Your task to perform on an android device: See recent photos Image 0: 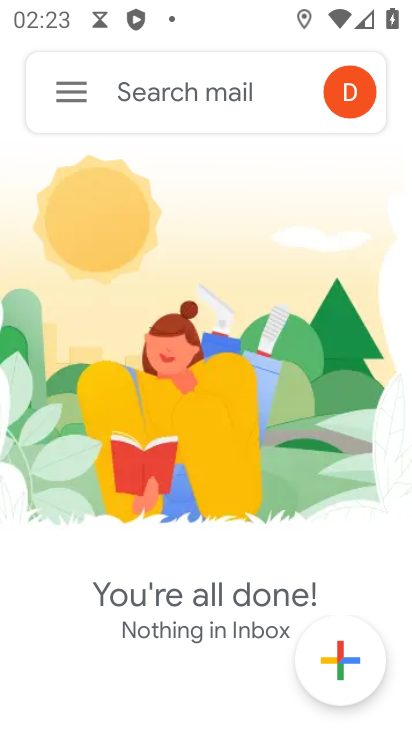
Step 0: press home button
Your task to perform on an android device: See recent photos Image 1: 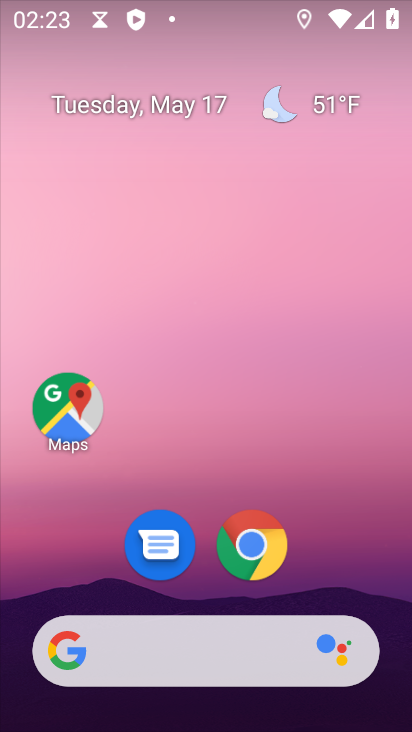
Step 1: drag from (196, 501) to (232, 41)
Your task to perform on an android device: See recent photos Image 2: 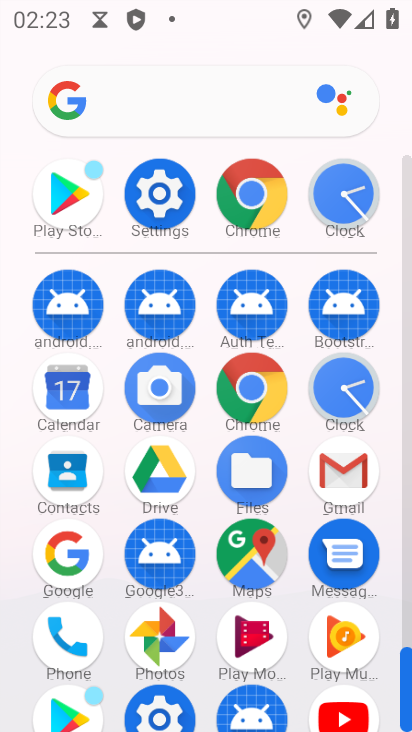
Step 2: click (161, 633)
Your task to perform on an android device: See recent photos Image 3: 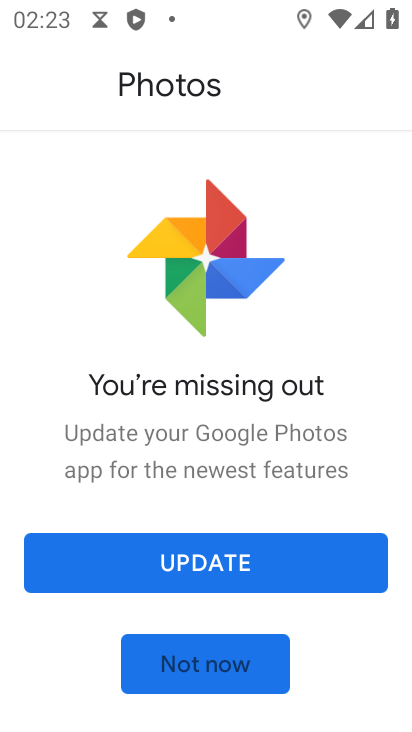
Step 3: click (208, 549)
Your task to perform on an android device: See recent photos Image 4: 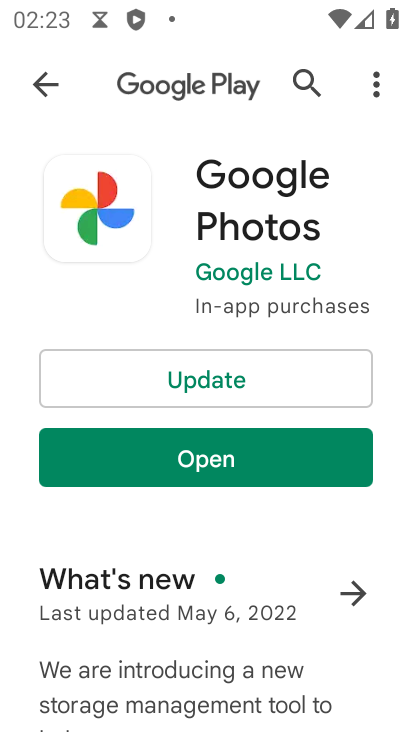
Step 4: click (200, 367)
Your task to perform on an android device: See recent photos Image 5: 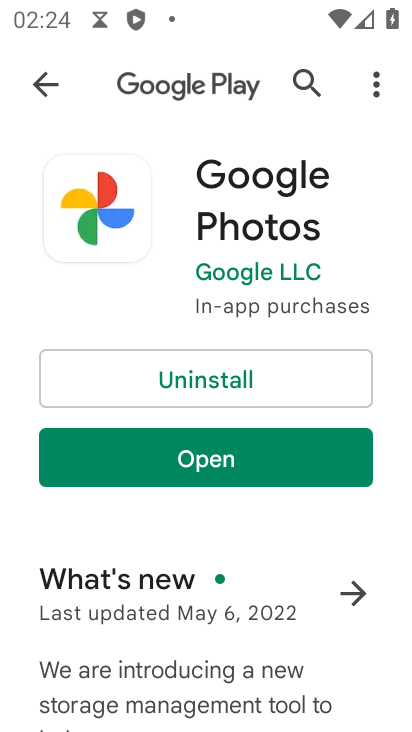
Step 5: click (176, 472)
Your task to perform on an android device: See recent photos Image 6: 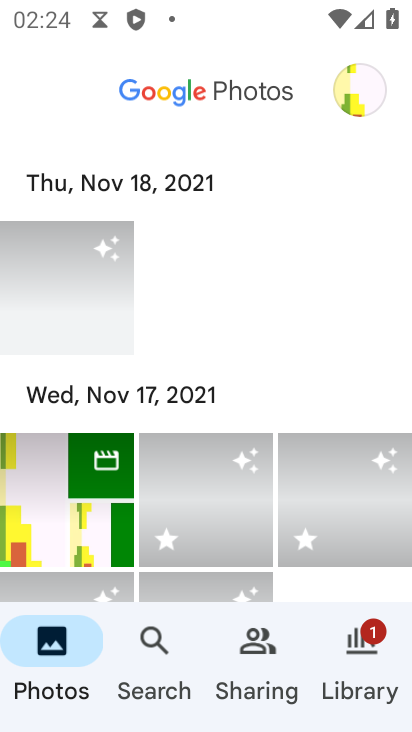
Step 6: task complete